Your task to perform on an android device: turn off location Image 0: 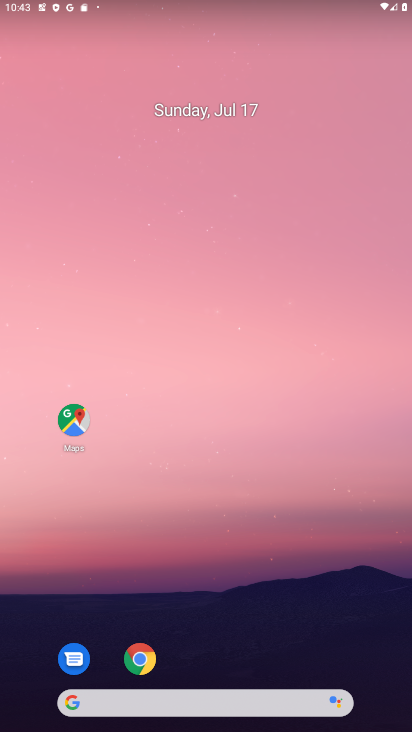
Step 0: drag from (193, 624) to (181, 212)
Your task to perform on an android device: turn off location Image 1: 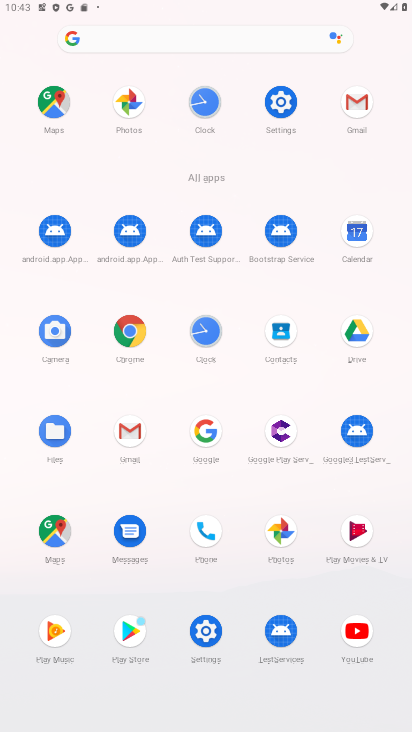
Step 1: click (287, 106)
Your task to perform on an android device: turn off location Image 2: 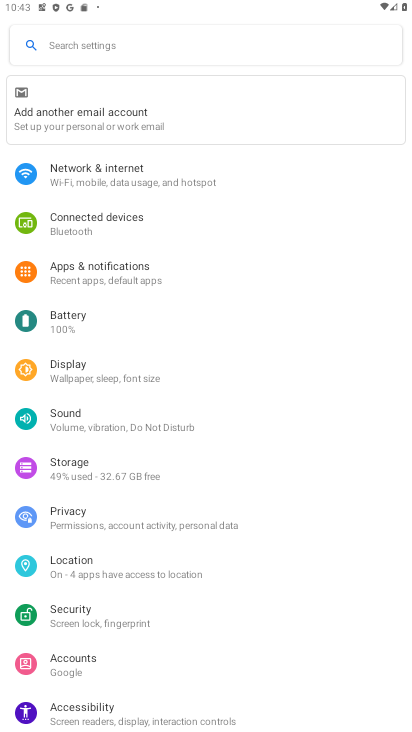
Step 2: click (109, 555)
Your task to perform on an android device: turn off location Image 3: 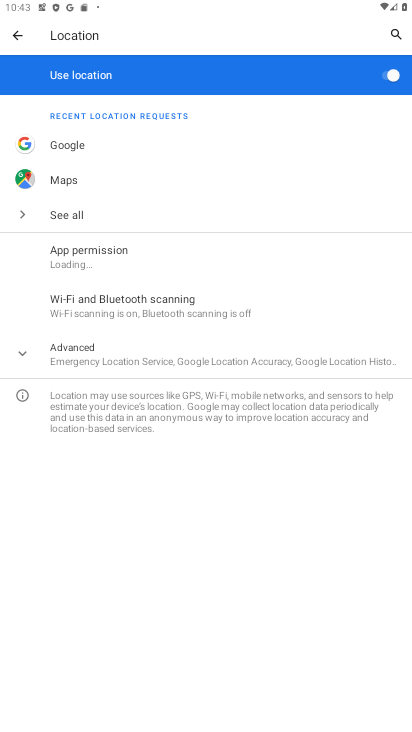
Step 3: click (390, 72)
Your task to perform on an android device: turn off location Image 4: 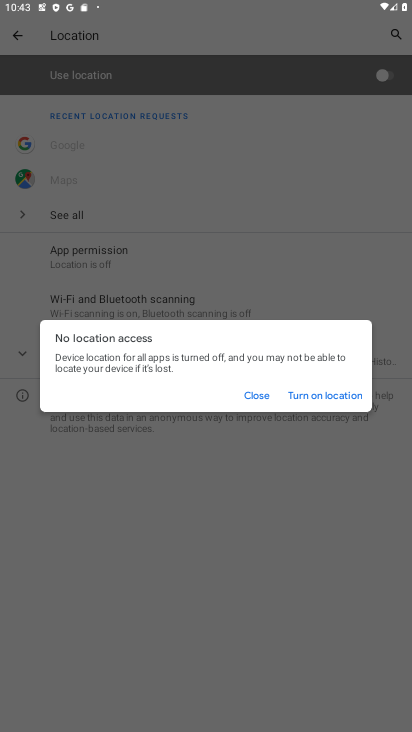
Step 4: click (250, 394)
Your task to perform on an android device: turn off location Image 5: 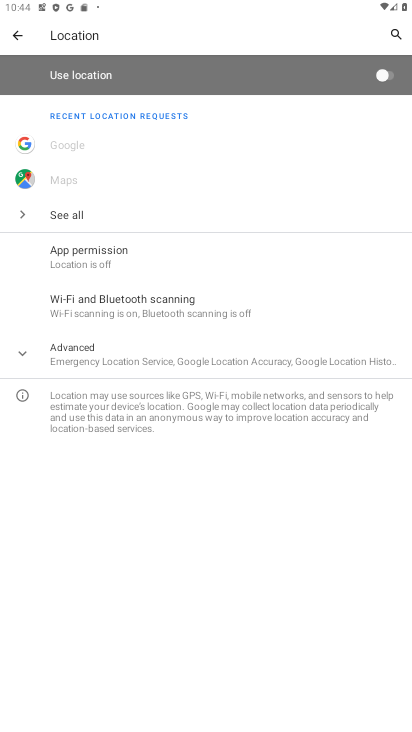
Step 5: press home button
Your task to perform on an android device: turn off location Image 6: 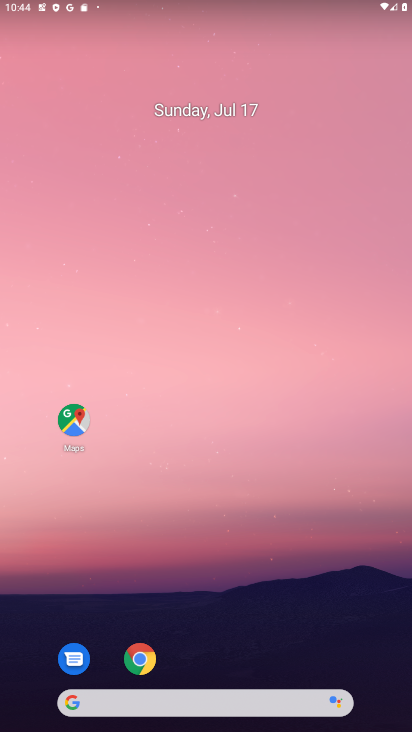
Step 6: drag from (235, 658) to (179, 124)
Your task to perform on an android device: turn off location Image 7: 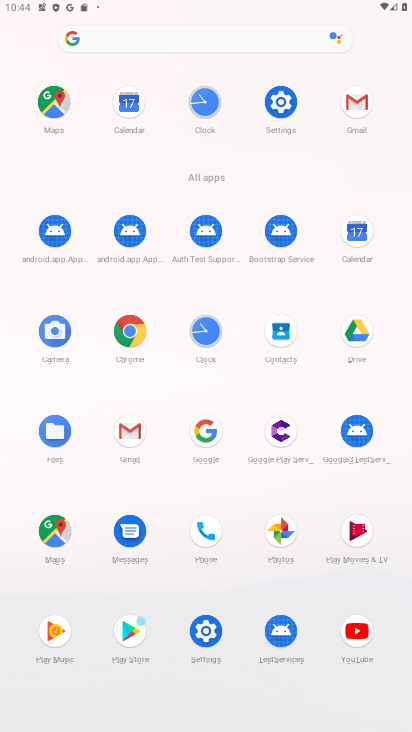
Step 7: click (273, 103)
Your task to perform on an android device: turn off location Image 8: 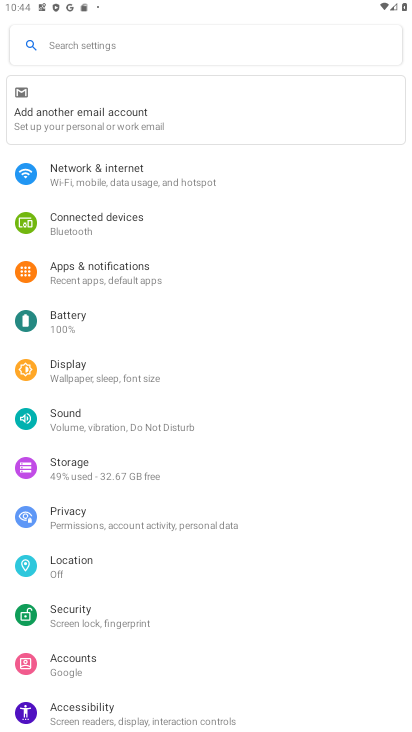
Step 8: task complete